Your task to perform on an android device: turn off notifications in google photos Image 0: 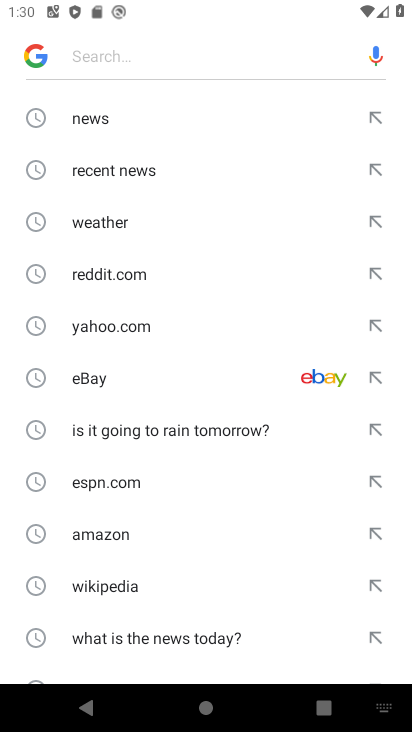
Step 0: press home button
Your task to perform on an android device: turn off notifications in google photos Image 1: 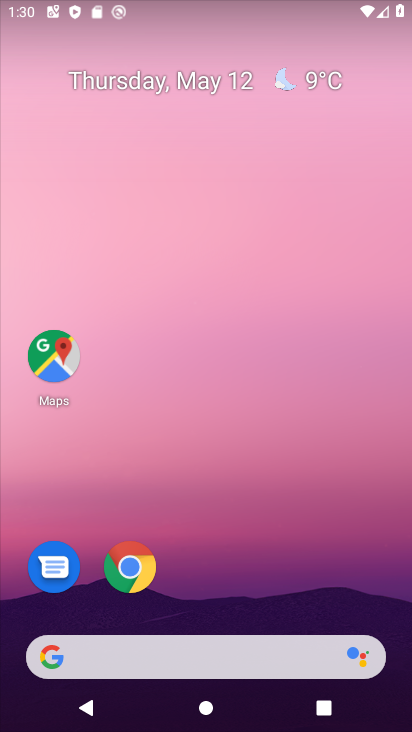
Step 1: drag from (224, 600) to (264, 74)
Your task to perform on an android device: turn off notifications in google photos Image 2: 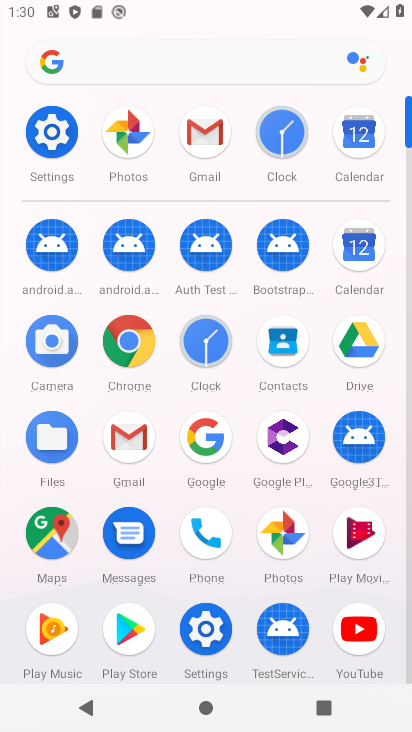
Step 2: click (123, 121)
Your task to perform on an android device: turn off notifications in google photos Image 3: 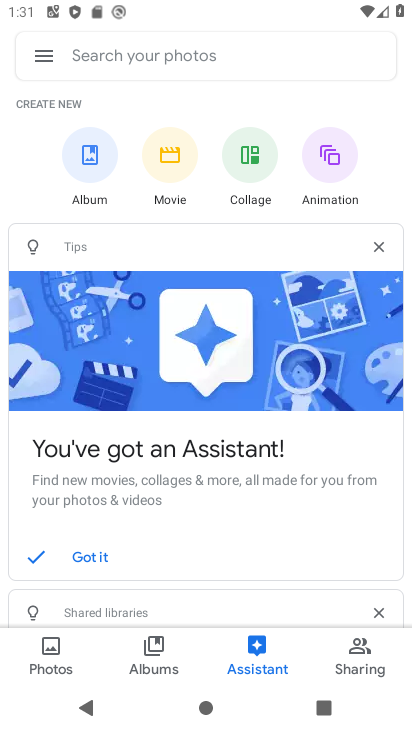
Step 3: click (53, 52)
Your task to perform on an android device: turn off notifications in google photos Image 4: 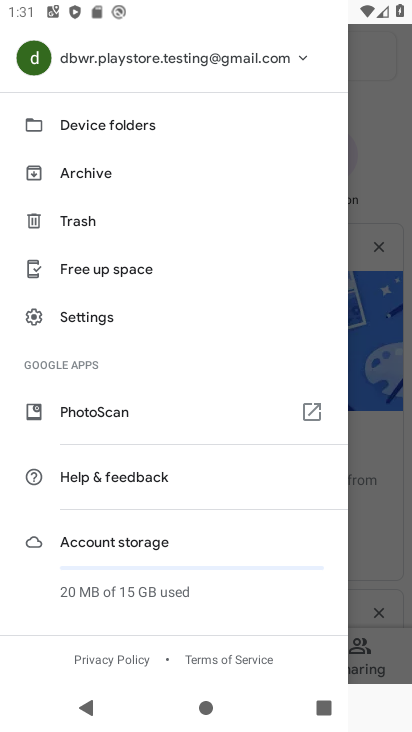
Step 4: click (111, 304)
Your task to perform on an android device: turn off notifications in google photos Image 5: 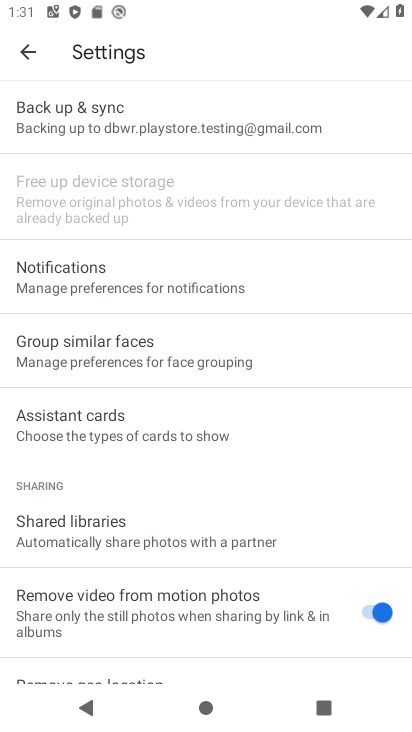
Step 5: click (125, 275)
Your task to perform on an android device: turn off notifications in google photos Image 6: 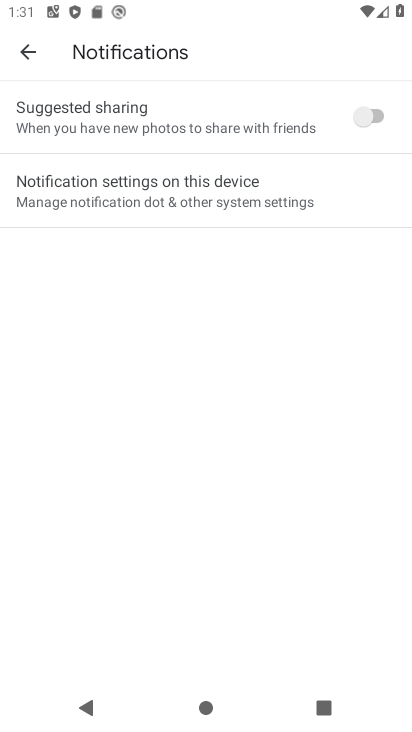
Step 6: click (280, 194)
Your task to perform on an android device: turn off notifications in google photos Image 7: 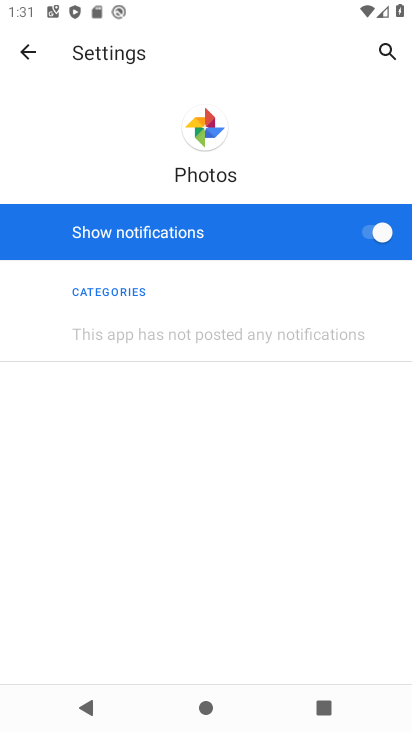
Step 7: click (375, 237)
Your task to perform on an android device: turn off notifications in google photos Image 8: 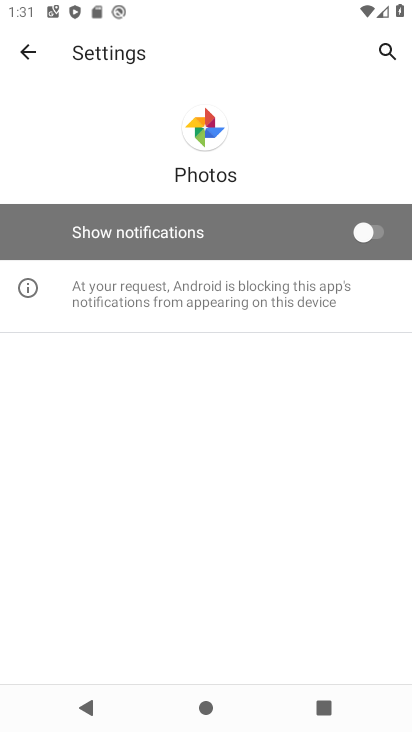
Step 8: task complete